Your task to perform on an android device: Turn on the flashlight Image 0: 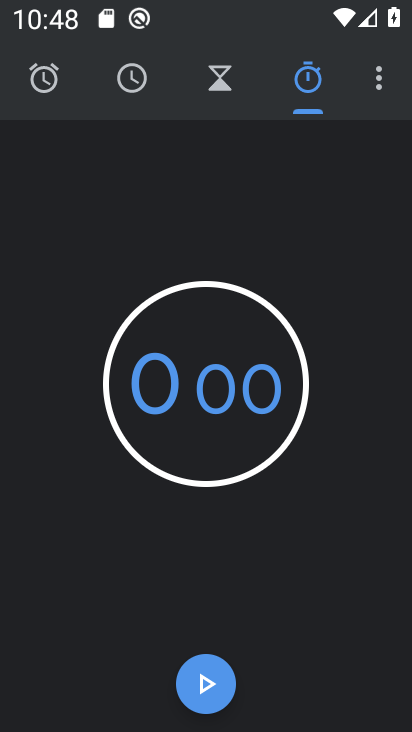
Step 0: press home button
Your task to perform on an android device: Turn on the flashlight Image 1: 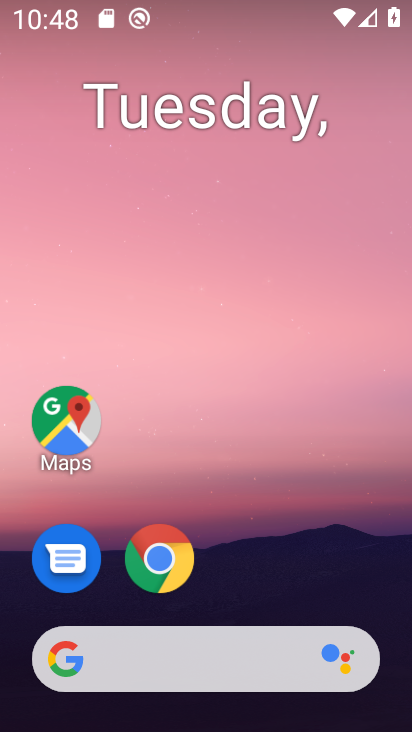
Step 1: drag from (253, 4) to (280, 494)
Your task to perform on an android device: Turn on the flashlight Image 2: 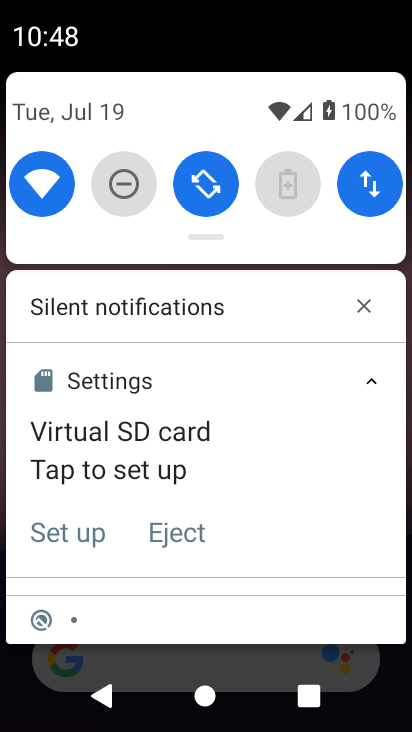
Step 2: drag from (240, 108) to (265, 437)
Your task to perform on an android device: Turn on the flashlight Image 3: 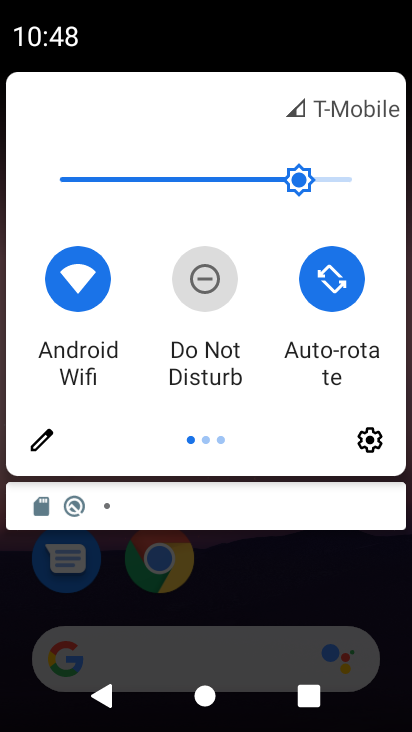
Step 3: click (43, 442)
Your task to perform on an android device: Turn on the flashlight Image 4: 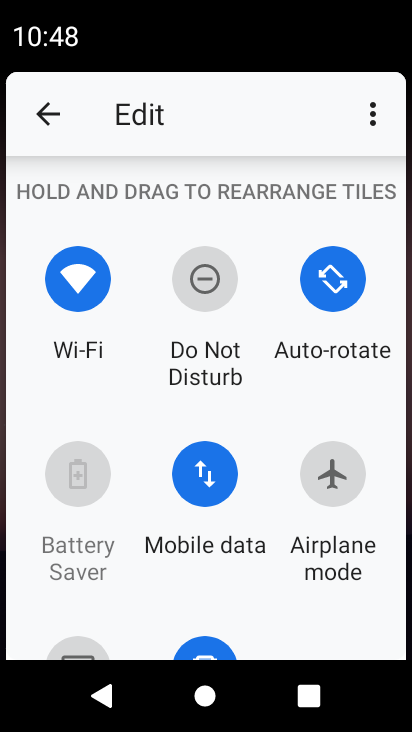
Step 4: task complete